Your task to perform on an android device: empty trash in google photos Image 0: 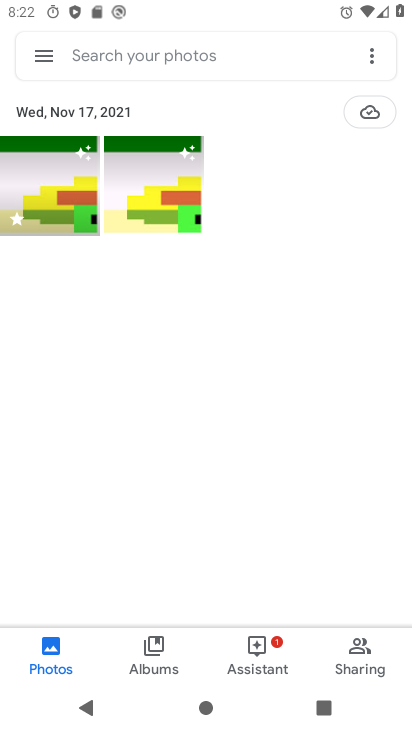
Step 0: click (39, 60)
Your task to perform on an android device: empty trash in google photos Image 1: 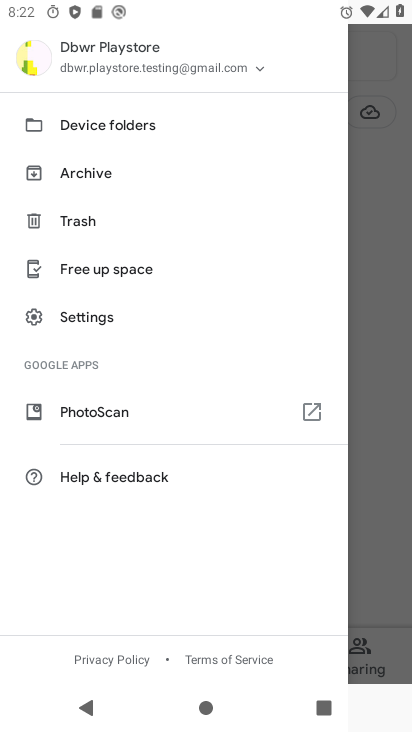
Step 1: click (70, 222)
Your task to perform on an android device: empty trash in google photos Image 2: 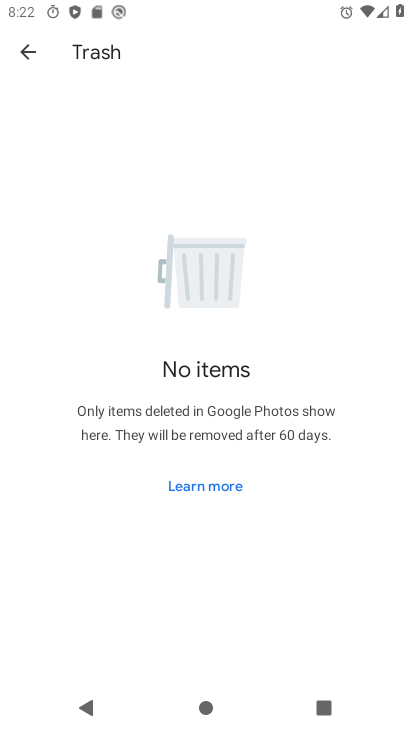
Step 2: task complete